Your task to perform on an android device: turn on priority inbox in the gmail app Image 0: 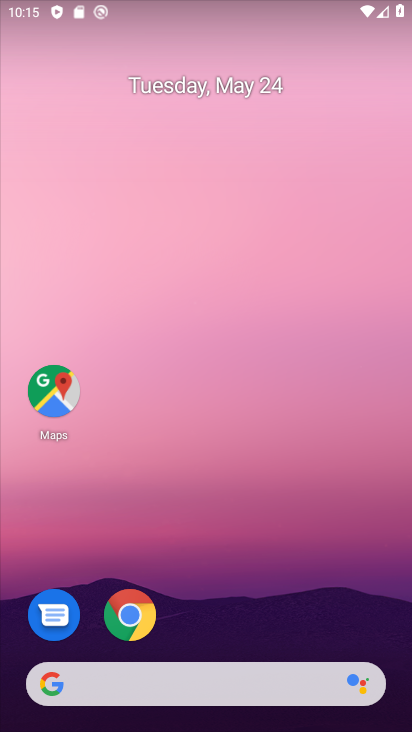
Step 0: drag from (268, 586) to (259, 90)
Your task to perform on an android device: turn on priority inbox in the gmail app Image 1: 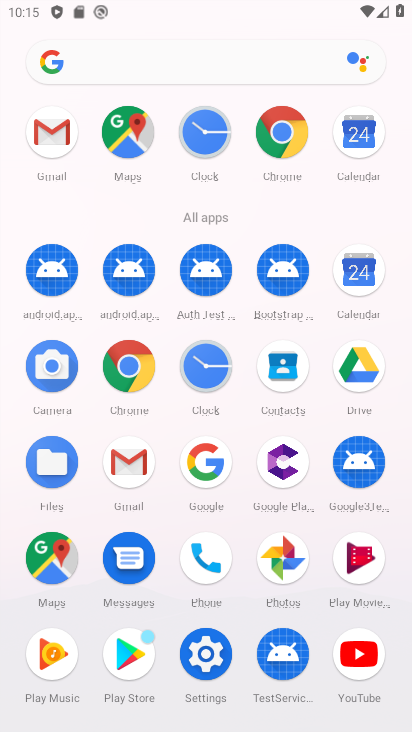
Step 1: click (44, 134)
Your task to perform on an android device: turn on priority inbox in the gmail app Image 2: 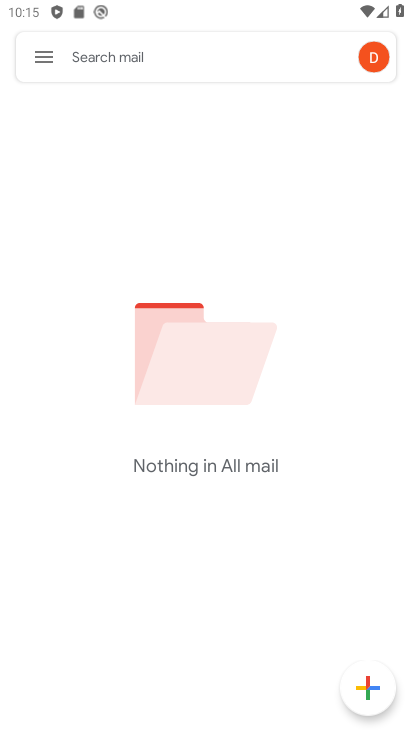
Step 2: click (42, 50)
Your task to perform on an android device: turn on priority inbox in the gmail app Image 3: 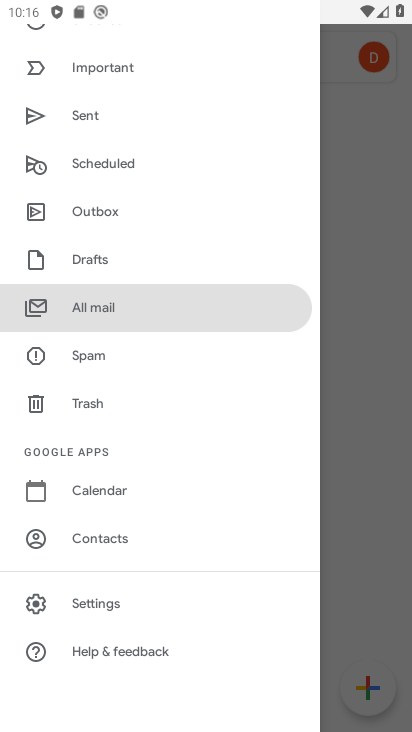
Step 3: drag from (182, 98) to (167, 422)
Your task to perform on an android device: turn on priority inbox in the gmail app Image 4: 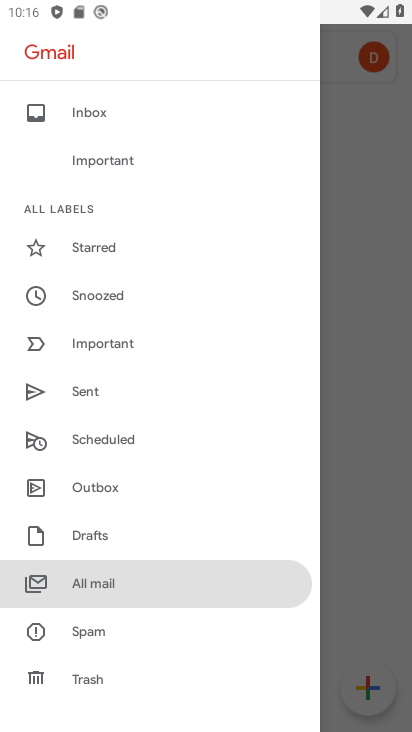
Step 4: click (176, 114)
Your task to perform on an android device: turn on priority inbox in the gmail app Image 5: 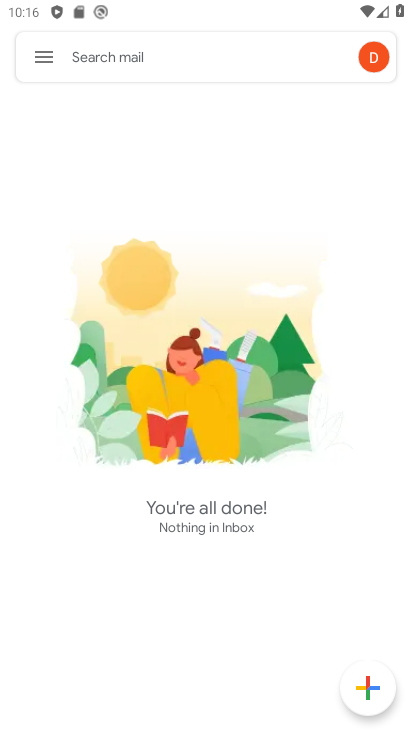
Step 5: click (36, 49)
Your task to perform on an android device: turn on priority inbox in the gmail app Image 6: 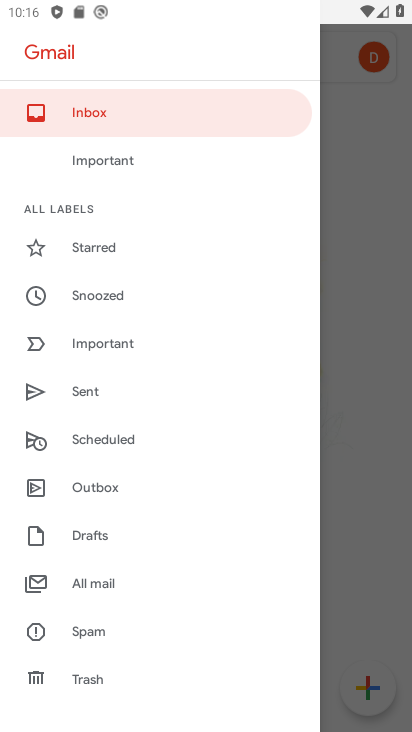
Step 6: click (151, 117)
Your task to perform on an android device: turn on priority inbox in the gmail app Image 7: 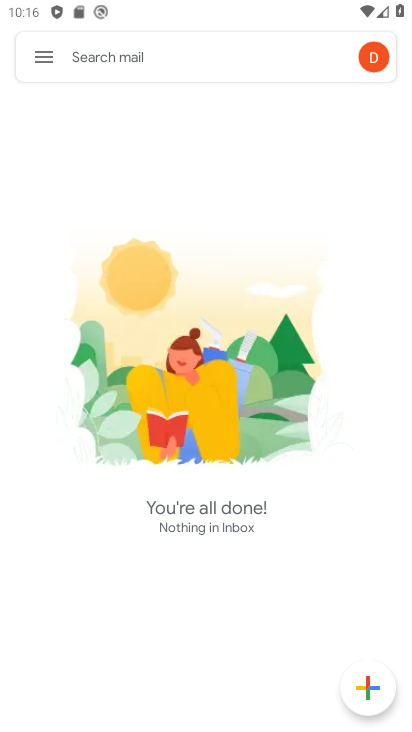
Step 7: task complete